Your task to perform on an android device: Open the web browser Image 0: 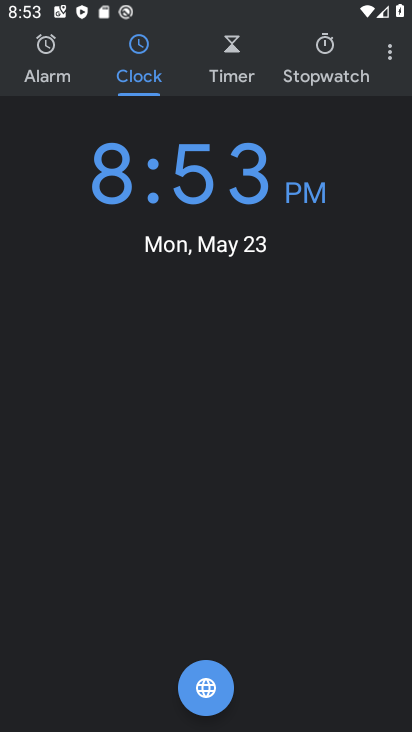
Step 0: press home button
Your task to perform on an android device: Open the web browser Image 1: 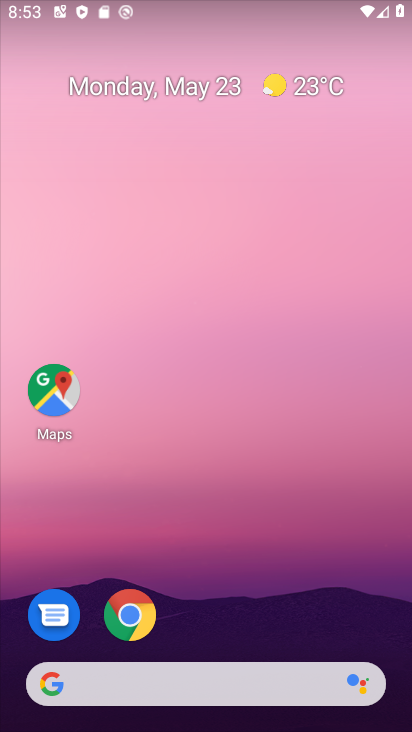
Step 1: click (133, 611)
Your task to perform on an android device: Open the web browser Image 2: 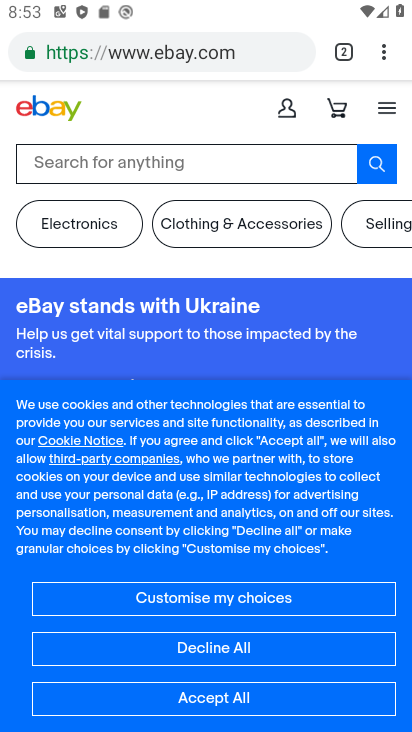
Step 2: task complete